Your task to perform on an android device: Go to Yahoo.com Image 0: 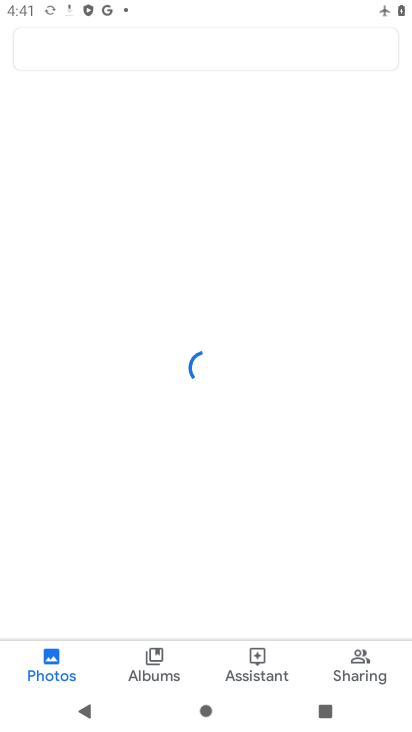
Step 0: press home button
Your task to perform on an android device: Go to Yahoo.com Image 1: 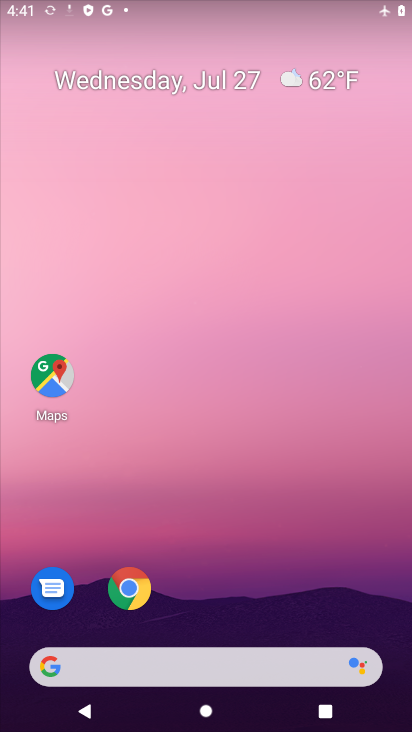
Step 1: click (132, 591)
Your task to perform on an android device: Go to Yahoo.com Image 2: 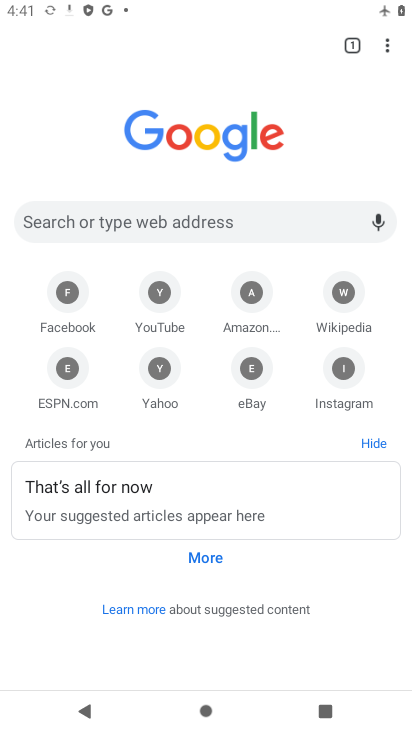
Step 2: click (154, 373)
Your task to perform on an android device: Go to Yahoo.com Image 3: 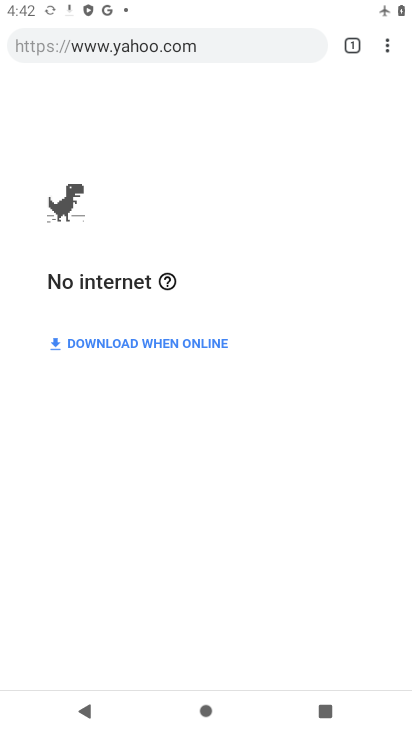
Step 3: task complete